Your task to perform on an android device: turn on the 24-hour format for clock Image 0: 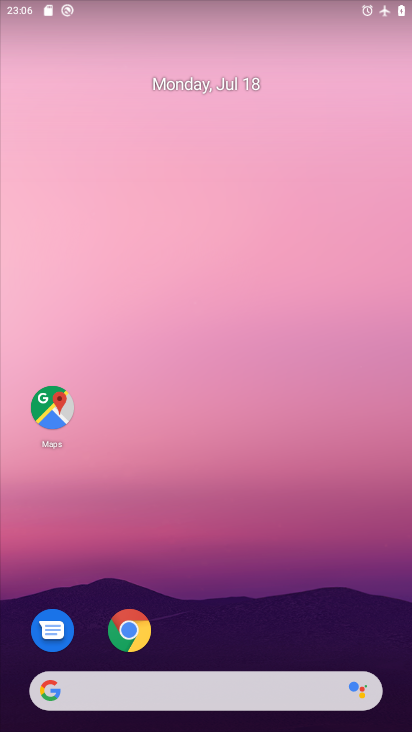
Step 0: drag from (213, 604) to (314, 30)
Your task to perform on an android device: turn on the 24-hour format for clock Image 1: 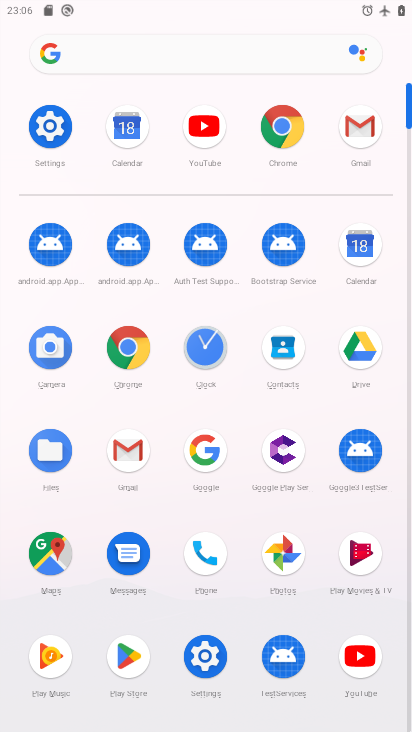
Step 1: click (372, 242)
Your task to perform on an android device: turn on the 24-hour format for clock Image 2: 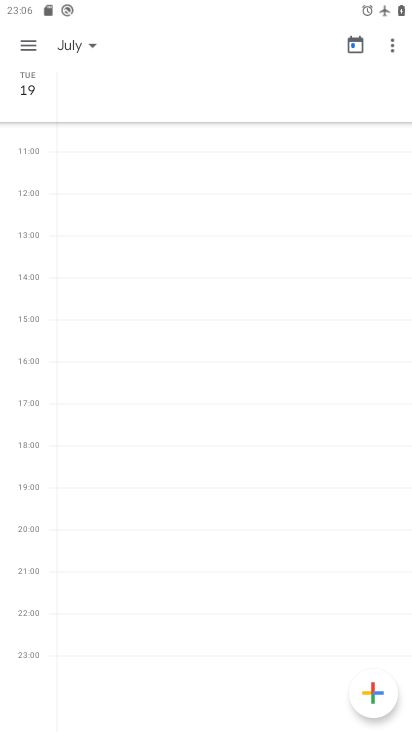
Step 2: press home button
Your task to perform on an android device: turn on the 24-hour format for clock Image 3: 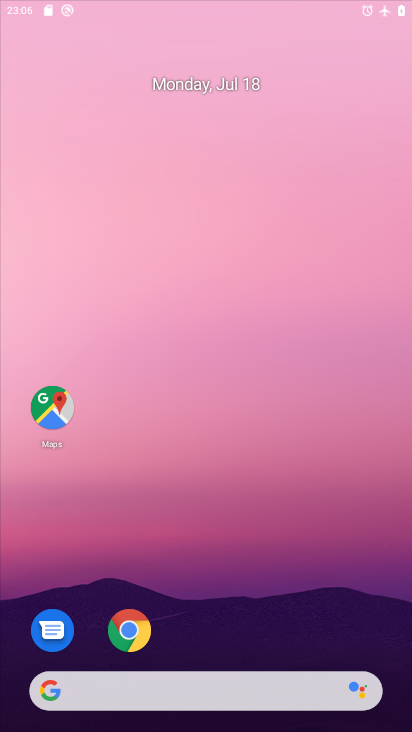
Step 3: drag from (268, 583) to (284, 309)
Your task to perform on an android device: turn on the 24-hour format for clock Image 4: 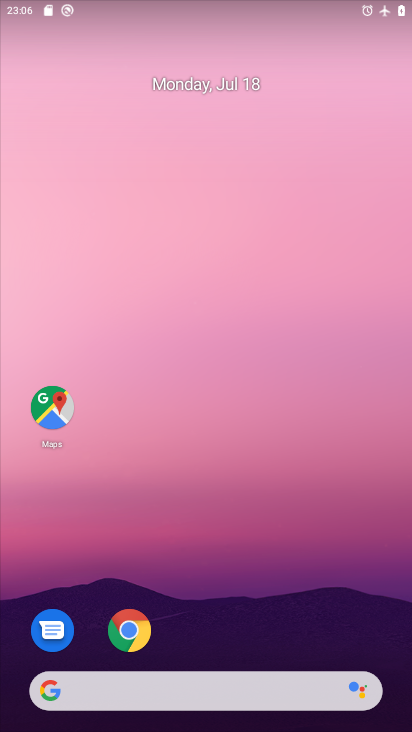
Step 4: drag from (245, 687) to (297, 454)
Your task to perform on an android device: turn on the 24-hour format for clock Image 5: 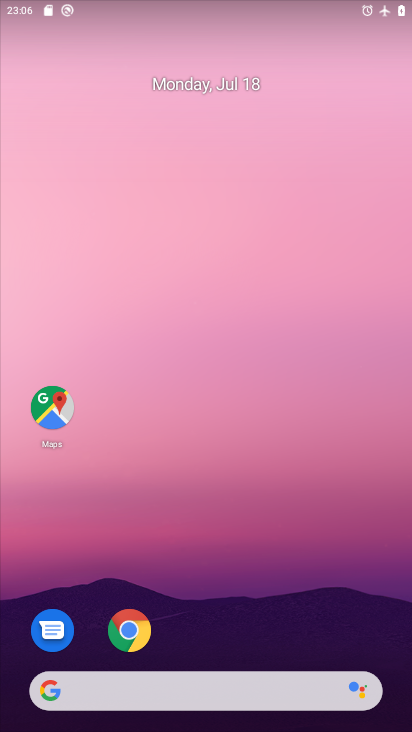
Step 5: drag from (263, 657) to (271, 130)
Your task to perform on an android device: turn on the 24-hour format for clock Image 6: 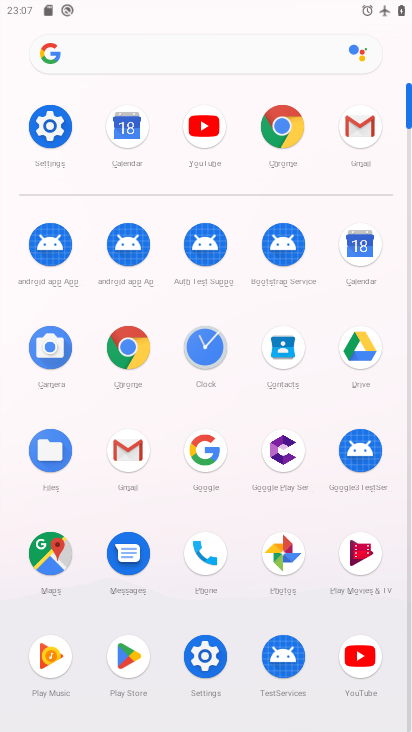
Step 6: click (202, 358)
Your task to perform on an android device: turn on the 24-hour format for clock Image 7: 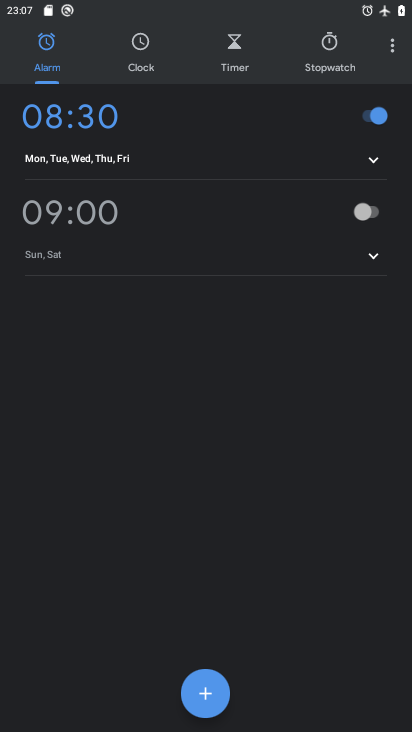
Step 7: click (393, 49)
Your task to perform on an android device: turn on the 24-hour format for clock Image 8: 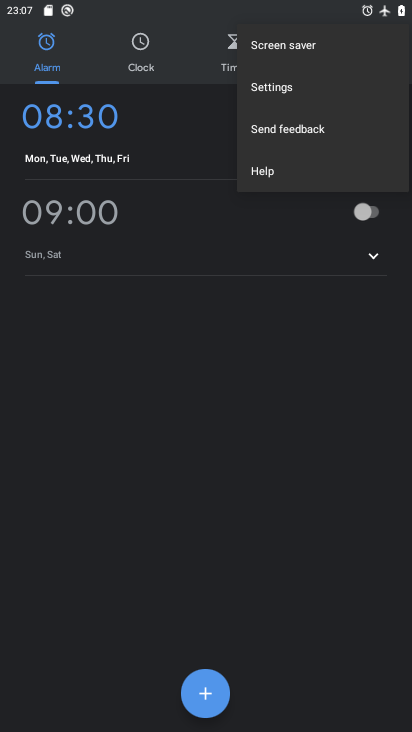
Step 8: click (279, 73)
Your task to perform on an android device: turn on the 24-hour format for clock Image 9: 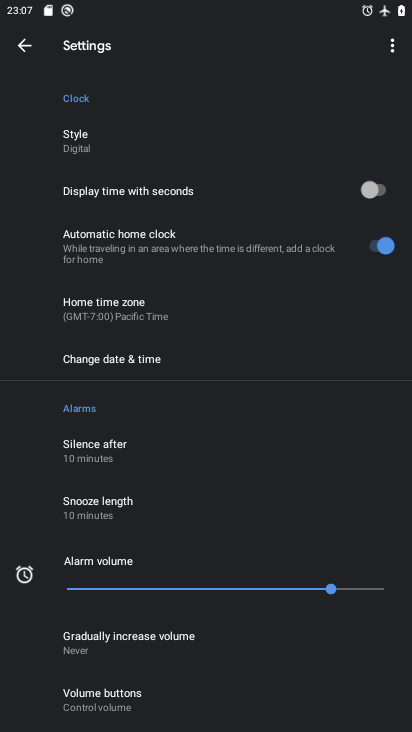
Step 9: click (123, 350)
Your task to perform on an android device: turn on the 24-hour format for clock Image 10: 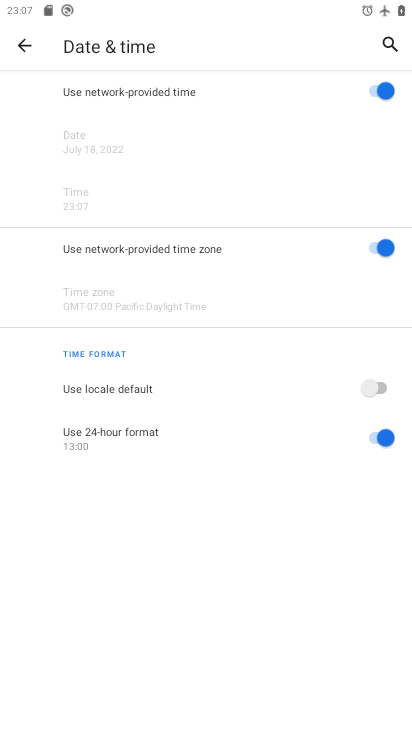
Step 10: task complete